Your task to perform on an android device: install app "Google Keep" Image 0: 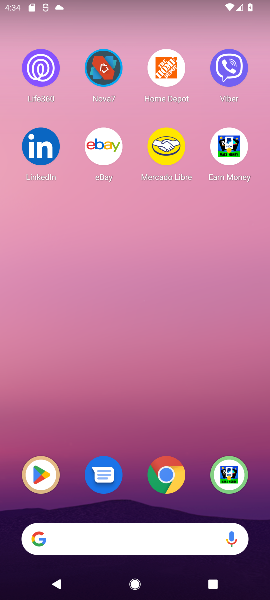
Step 0: drag from (169, 388) to (153, 151)
Your task to perform on an android device: install app "Google Keep" Image 1: 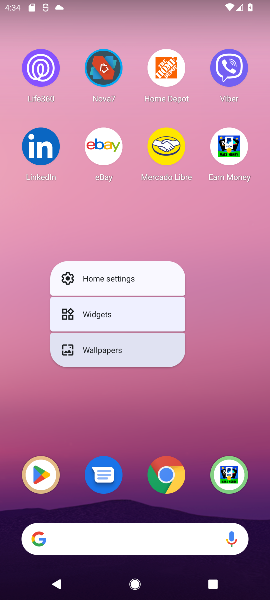
Step 1: click (151, 12)
Your task to perform on an android device: install app "Google Keep" Image 2: 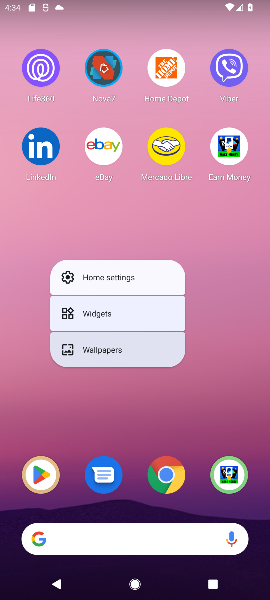
Step 2: click (226, 374)
Your task to perform on an android device: install app "Google Keep" Image 3: 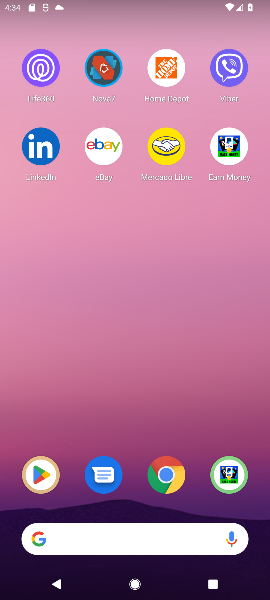
Step 3: click (49, 479)
Your task to perform on an android device: install app "Google Keep" Image 4: 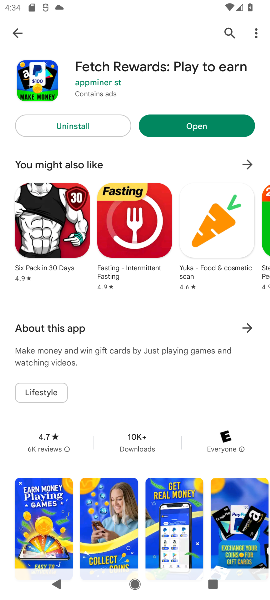
Step 4: click (224, 34)
Your task to perform on an android device: install app "Google Keep" Image 5: 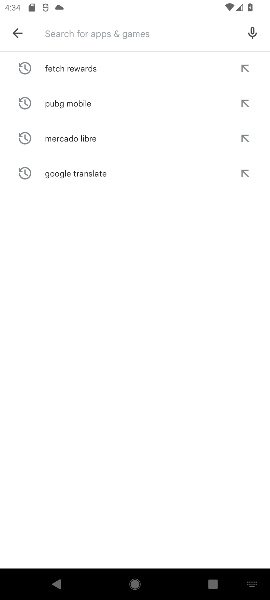
Step 5: type "Google Keep"
Your task to perform on an android device: install app "Google Keep" Image 6: 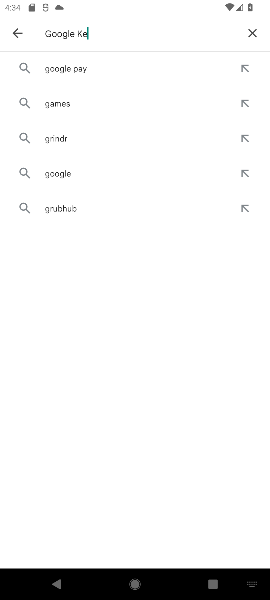
Step 6: type ""
Your task to perform on an android device: install app "Google Keep" Image 7: 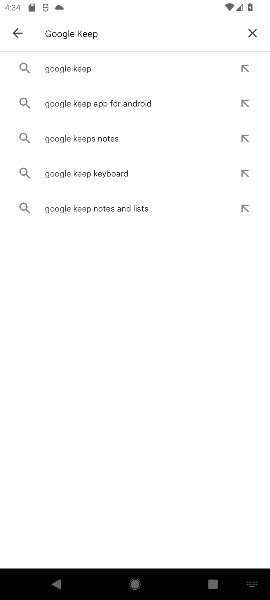
Step 7: click (93, 71)
Your task to perform on an android device: install app "Google Keep" Image 8: 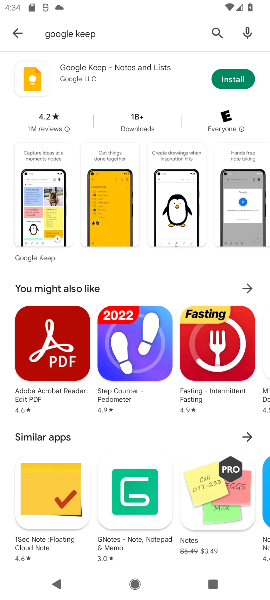
Step 8: click (243, 81)
Your task to perform on an android device: install app "Google Keep" Image 9: 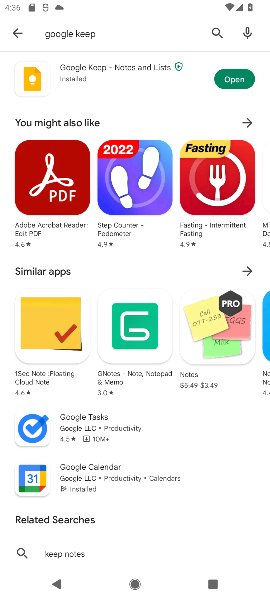
Step 9: task complete